Your task to perform on an android device: Search for 'The Girl on the Train' on Goodreads. Image 0: 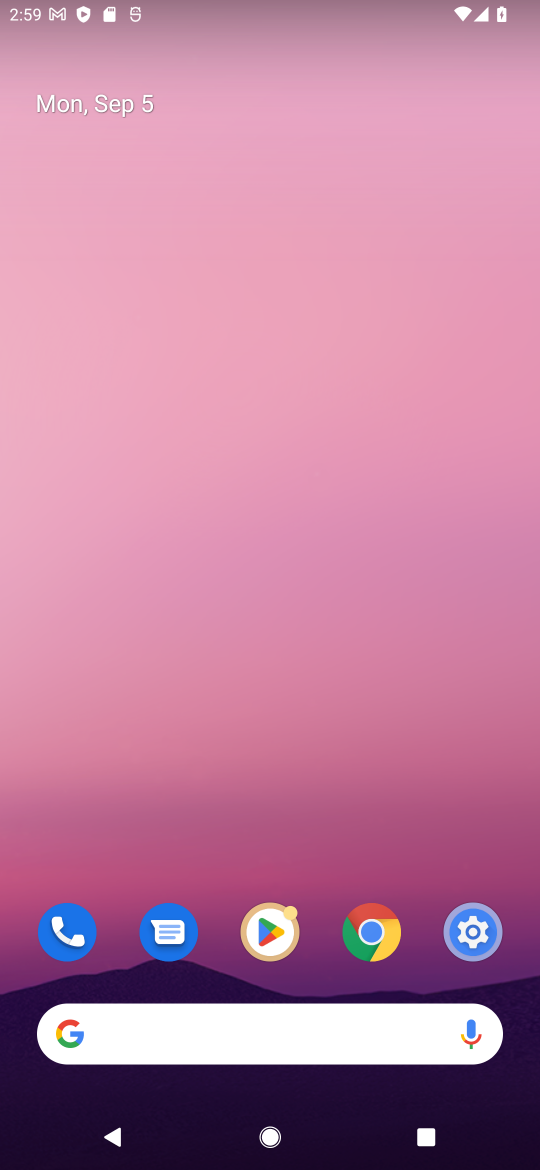
Step 0: click (233, 1018)
Your task to perform on an android device: Search for 'The Girl on the Train' on Goodreads. Image 1: 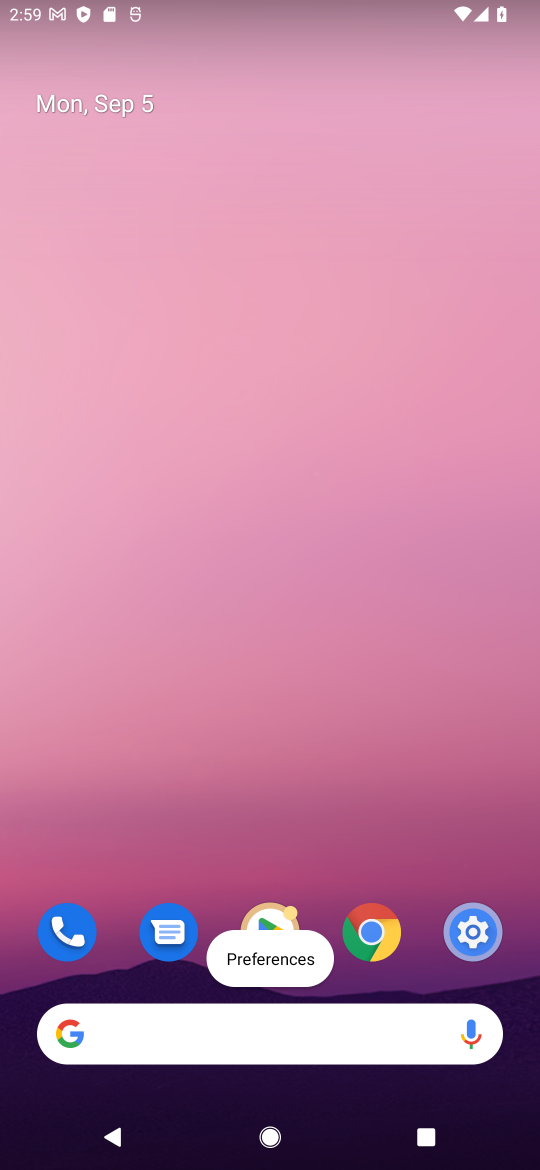
Step 1: click (332, 1042)
Your task to perform on an android device: Search for 'The Girl on the Train' on Goodreads. Image 2: 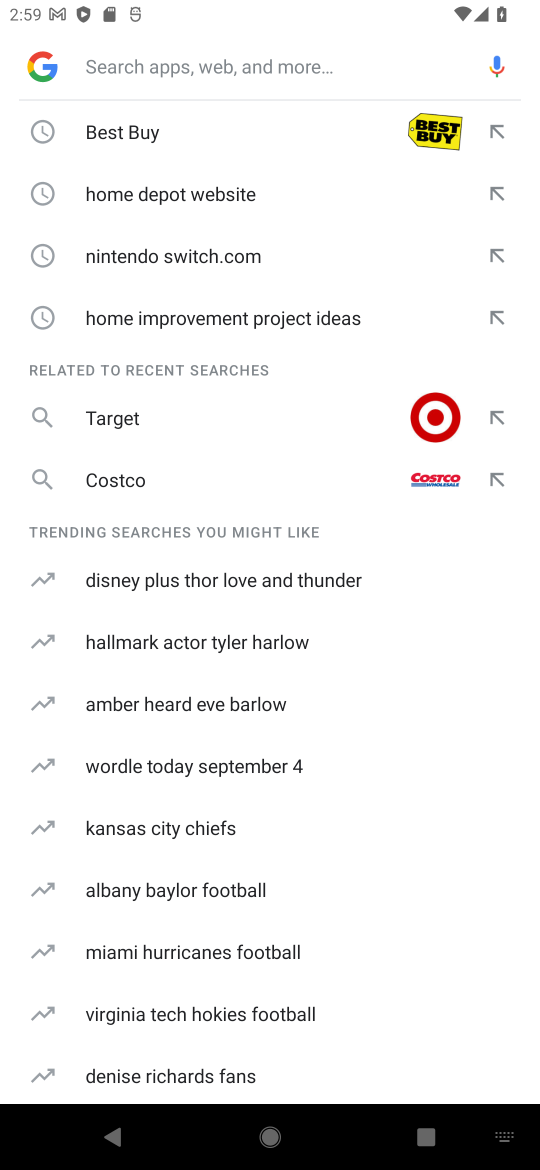
Step 2: type "Goodreads"
Your task to perform on an android device: Search for 'The Girl on the Train' on Goodreads. Image 3: 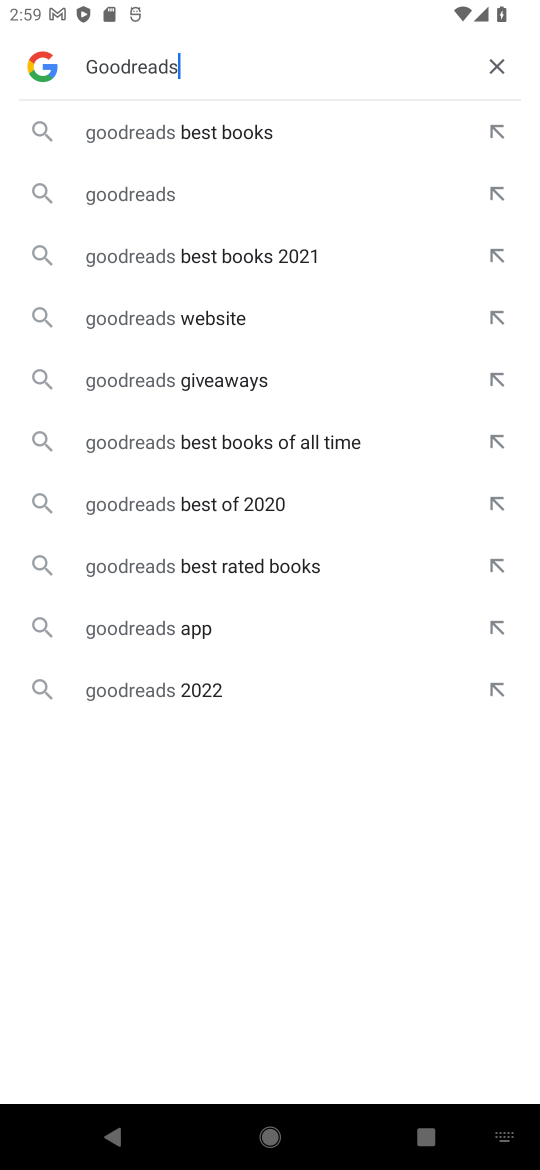
Step 3: click (181, 206)
Your task to perform on an android device: Search for 'The Girl on the Train' on Goodreads. Image 4: 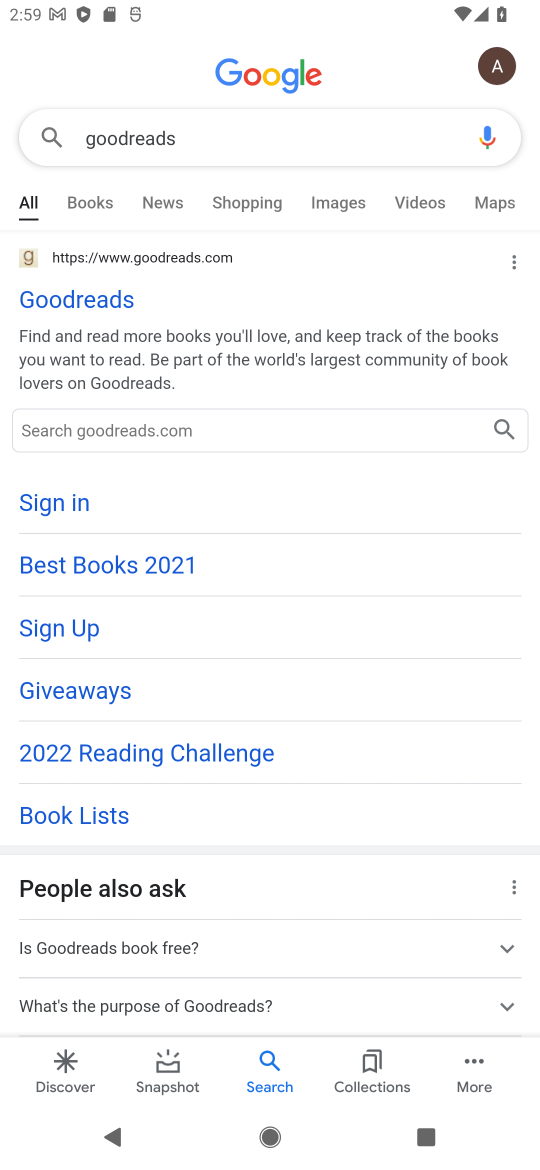
Step 4: click (87, 312)
Your task to perform on an android device: Search for 'The Girl on the Train' on Goodreads. Image 5: 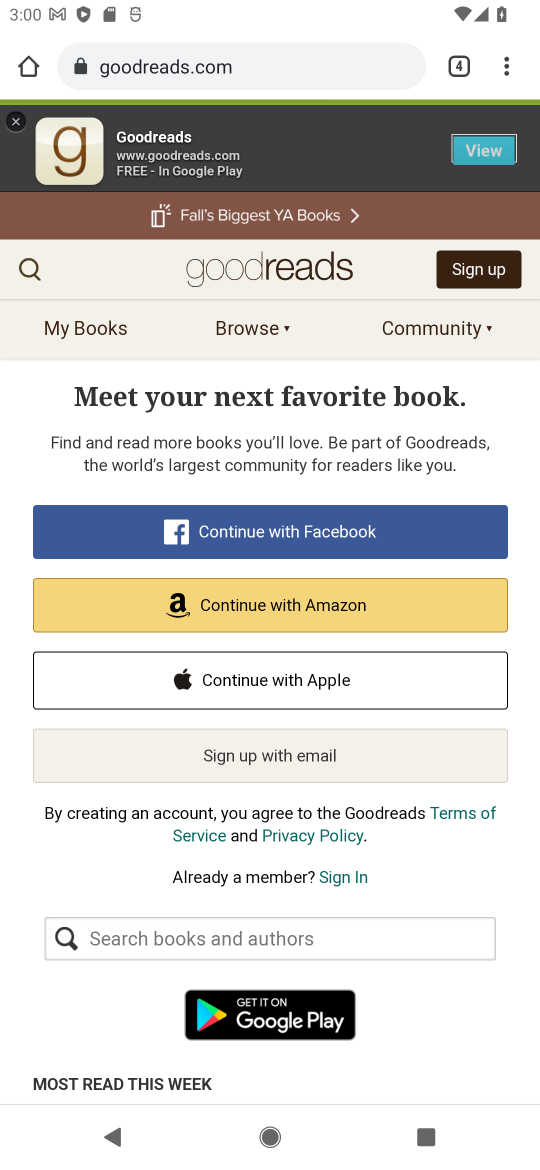
Step 5: click (30, 275)
Your task to perform on an android device: Search for 'The Girl on the Train' on Goodreads. Image 6: 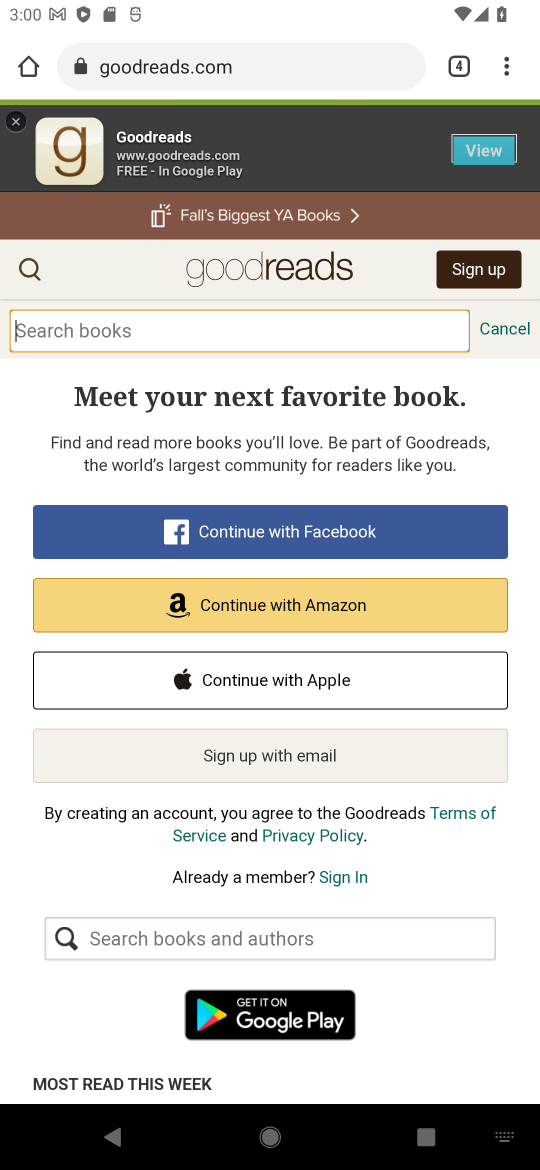
Step 6: type "The Girl on the Train"
Your task to perform on an android device: Search for 'The Girl on the Train' on Goodreads. Image 7: 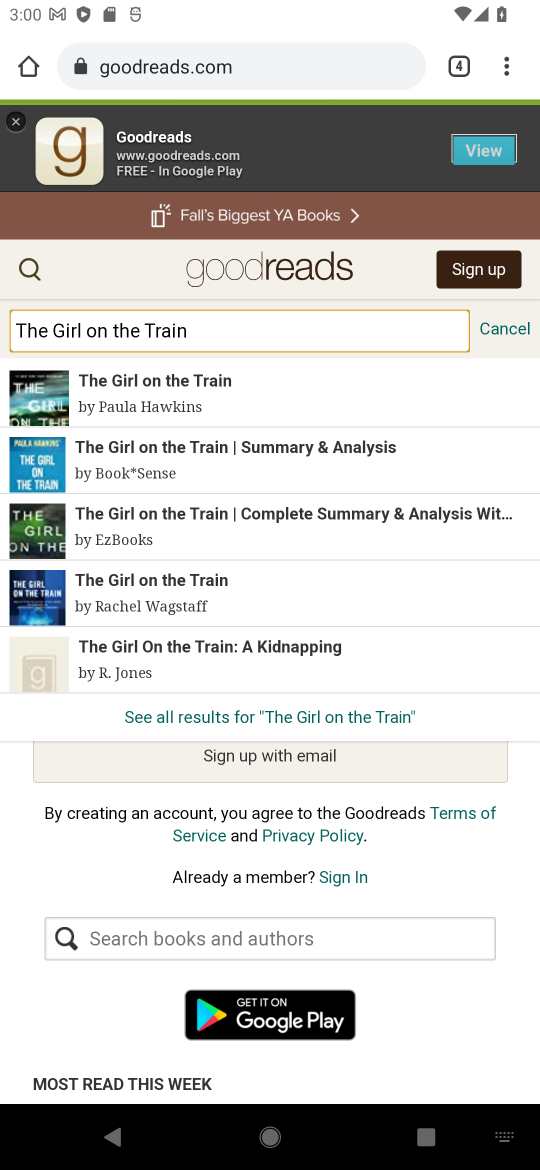
Step 7: click (227, 417)
Your task to perform on an android device: Search for 'The Girl on the Train' on Goodreads. Image 8: 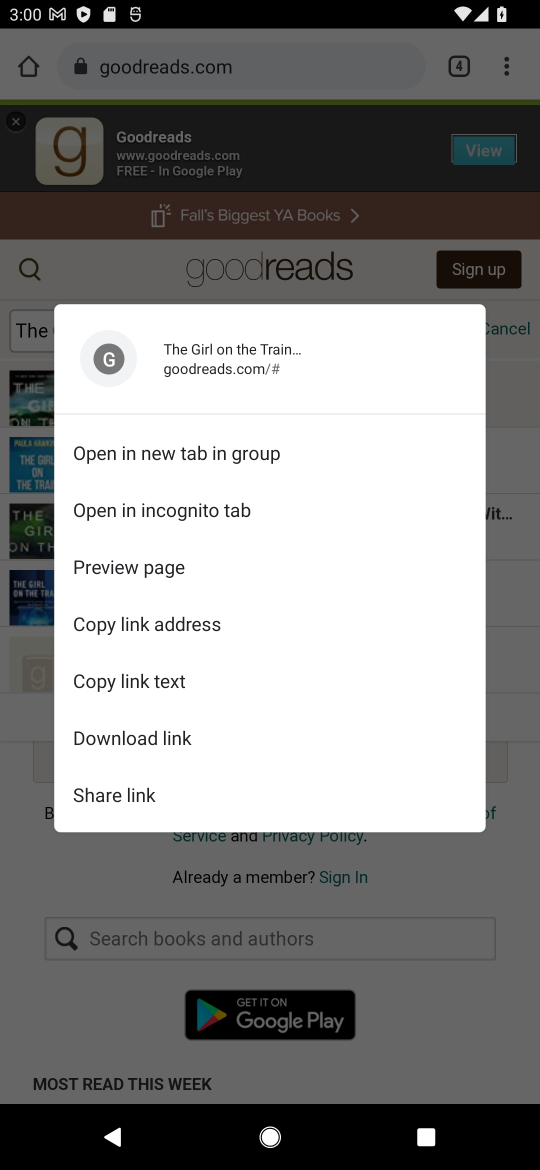
Step 8: click (86, 857)
Your task to perform on an android device: Search for 'The Girl on the Train' on Goodreads. Image 9: 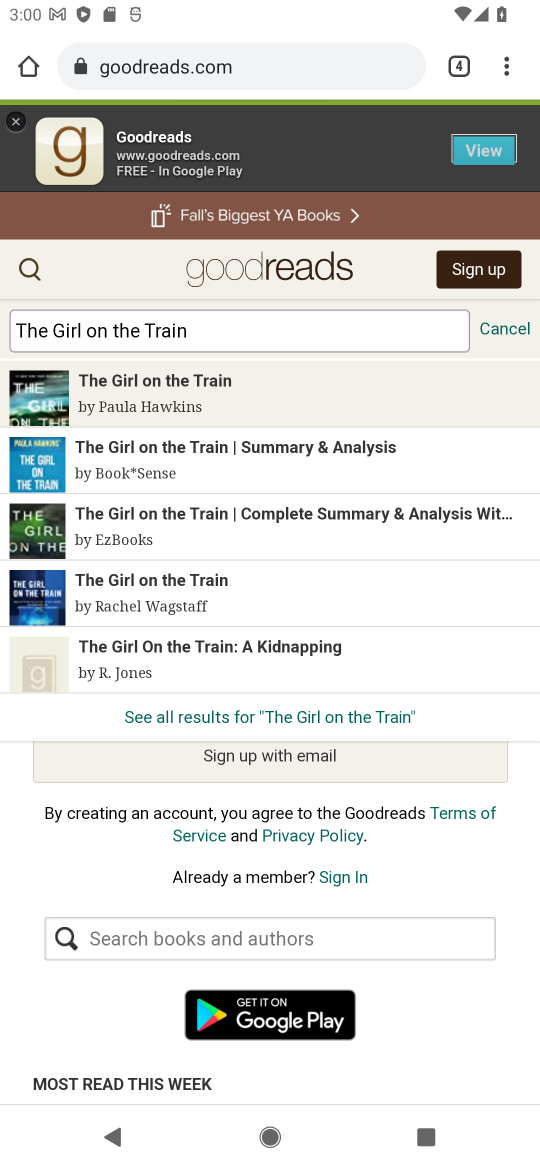
Step 9: click (141, 413)
Your task to perform on an android device: Search for 'The Girl on the Train' on Goodreads. Image 10: 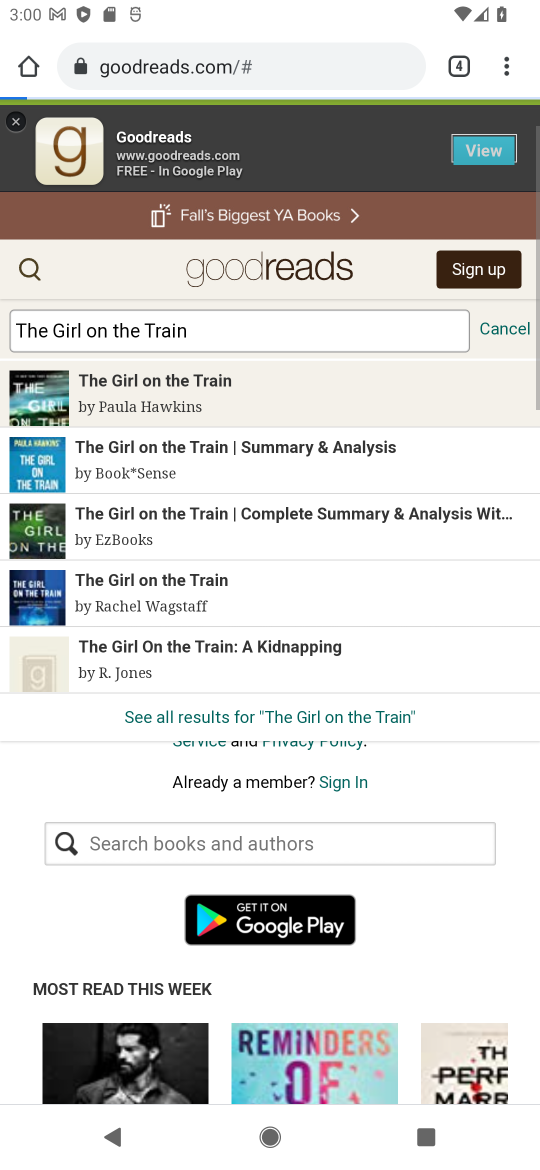
Step 10: click (163, 394)
Your task to perform on an android device: Search for 'The Girl on the Train' on Goodreads. Image 11: 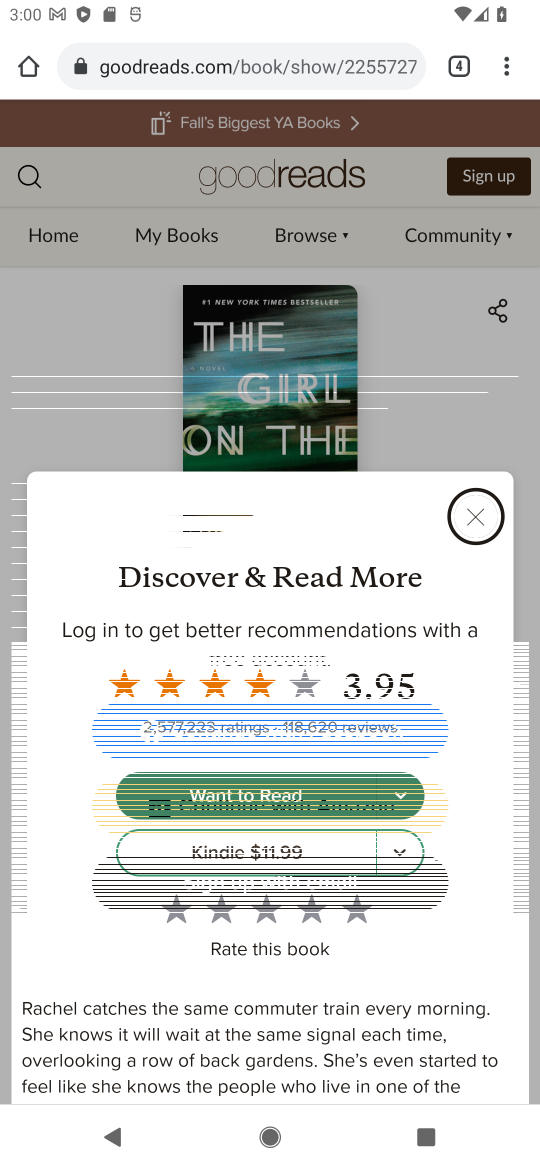
Step 11: task complete